Your task to perform on an android device: What's the weather going to be tomorrow? Image 0: 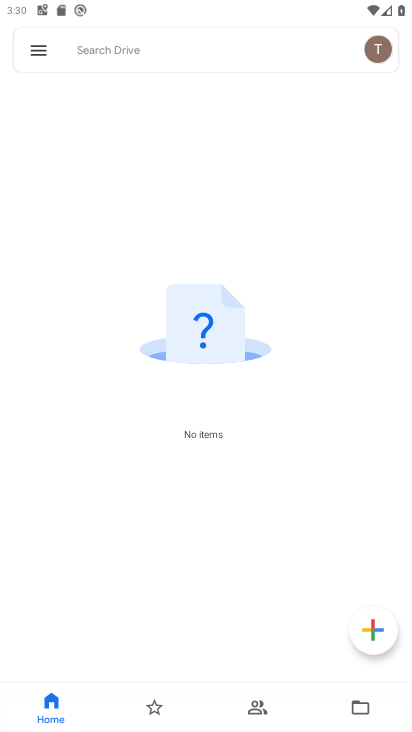
Step 0: press home button
Your task to perform on an android device: What's the weather going to be tomorrow? Image 1: 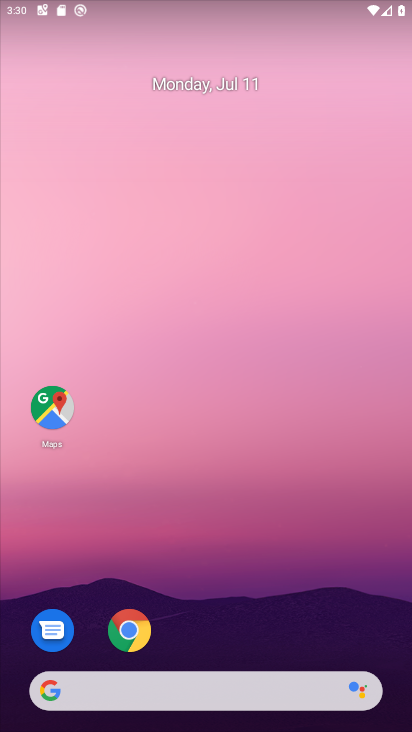
Step 1: drag from (257, 649) to (191, 249)
Your task to perform on an android device: What's the weather going to be tomorrow? Image 2: 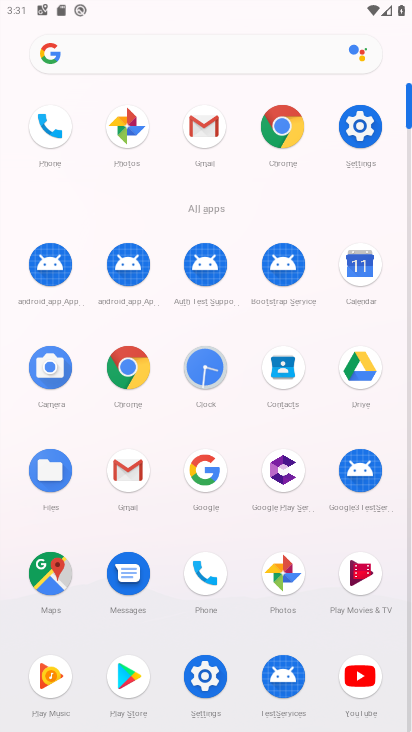
Step 2: click (180, 61)
Your task to perform on an android device: What's the weather going to be tomorrow? Image 3: 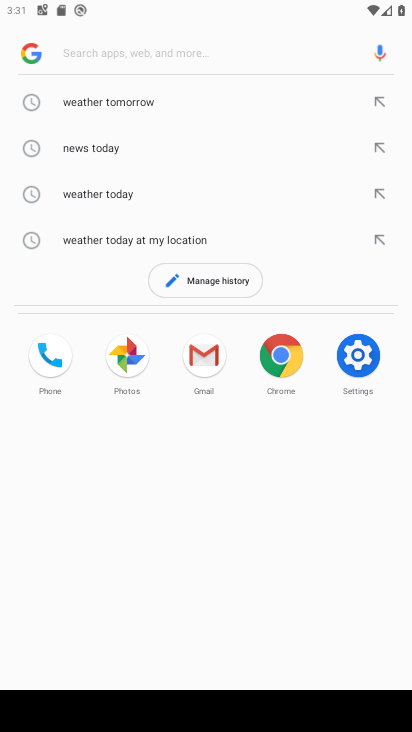
Step 3: click (151, 188)
Your task to perform on an android device: What's the weather going to be tomorrow? Image 4: 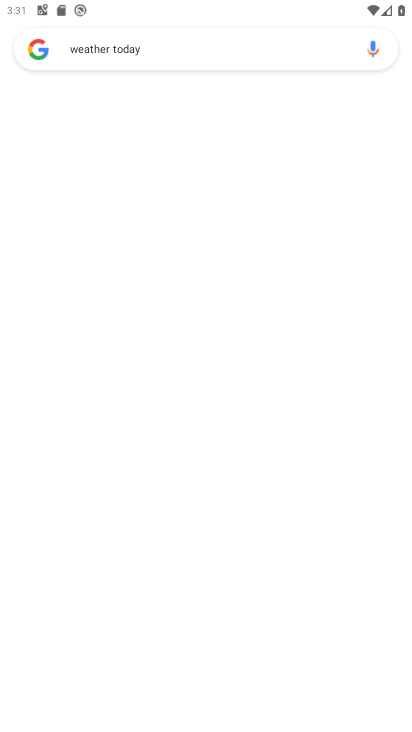
Step 4: task complete